Your task to perform on an android device: Add "razer blade" to the cart on ebay, then select checkout. Image 0: 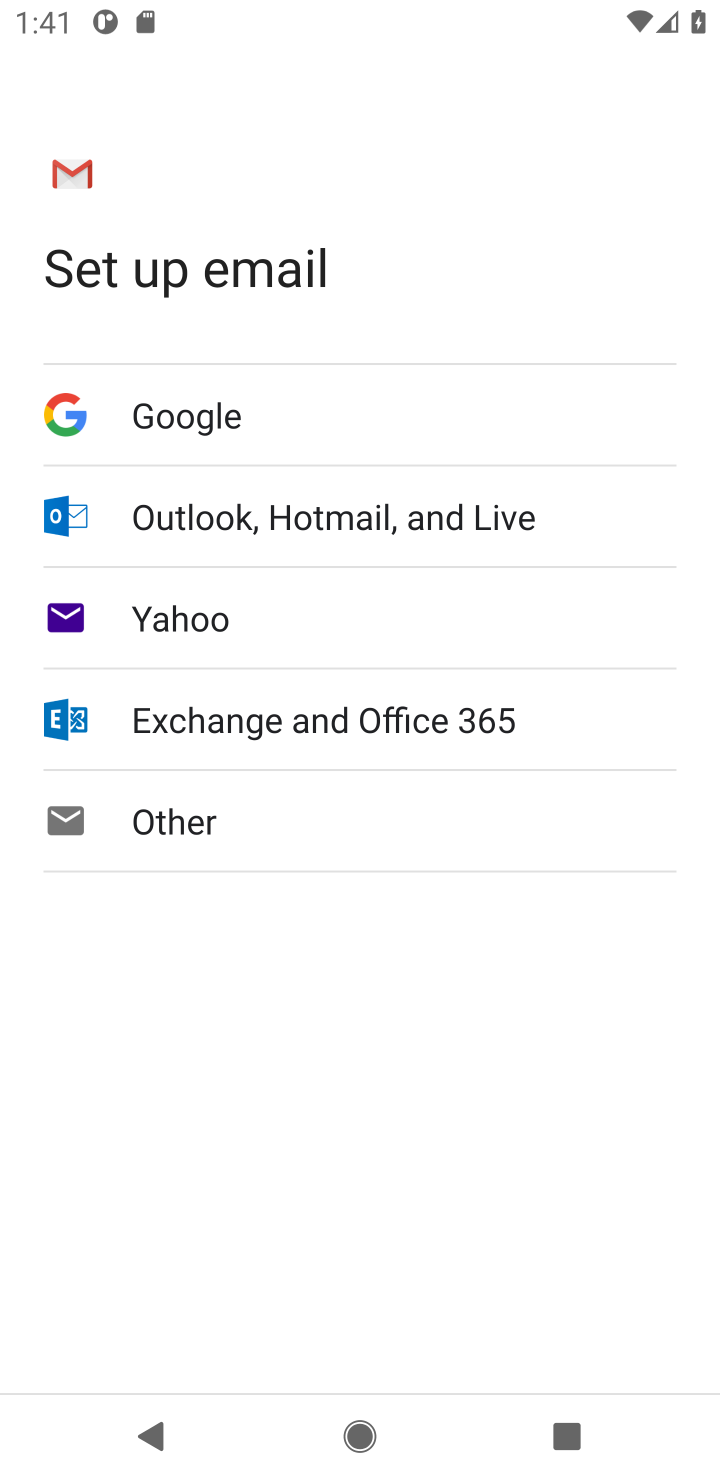
Step 0: press home button
Your task to perform on an android device: Add "razer blade" to the cart on ebay, then select checkout. Image 1: 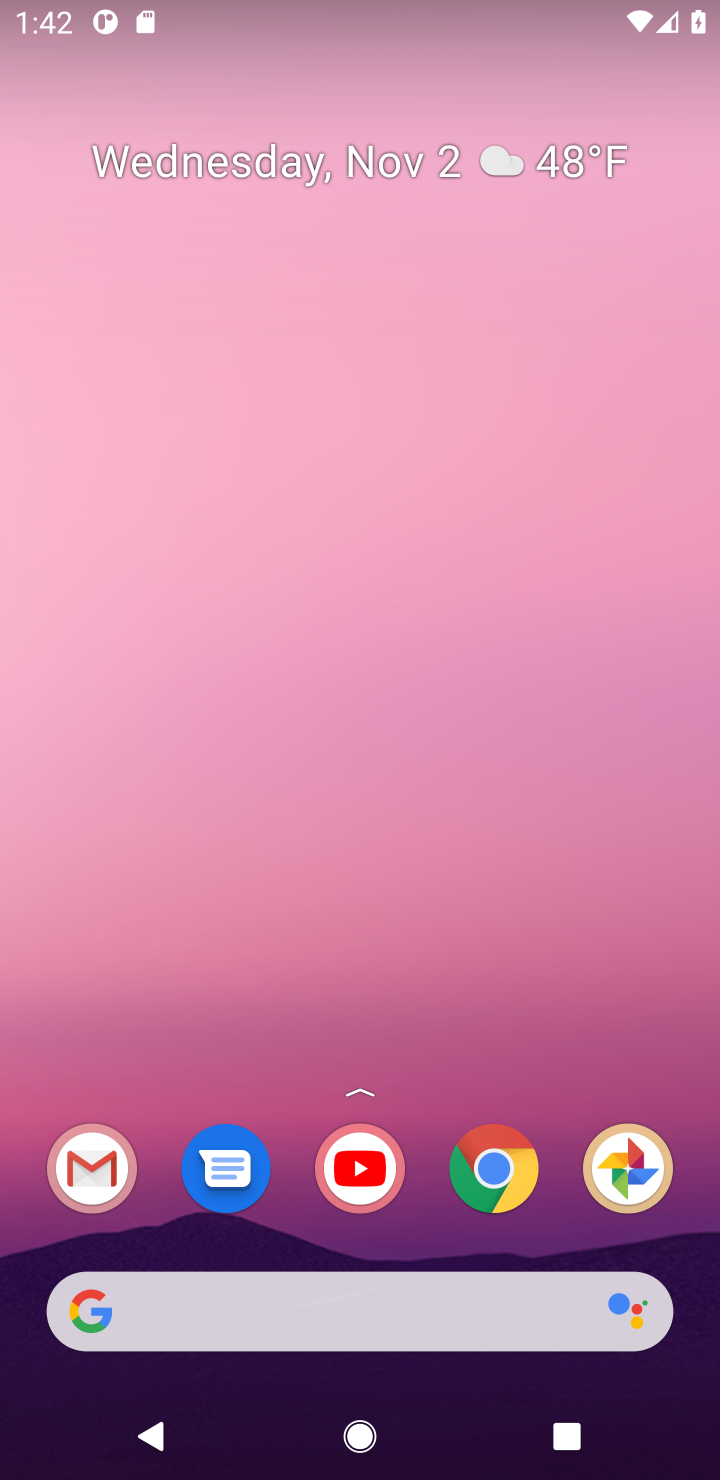
Step 1: click (317, 1307)
Your task to perform on an android device: Add "razer blade" to the cart on ebay, then select checkout. Image 2: 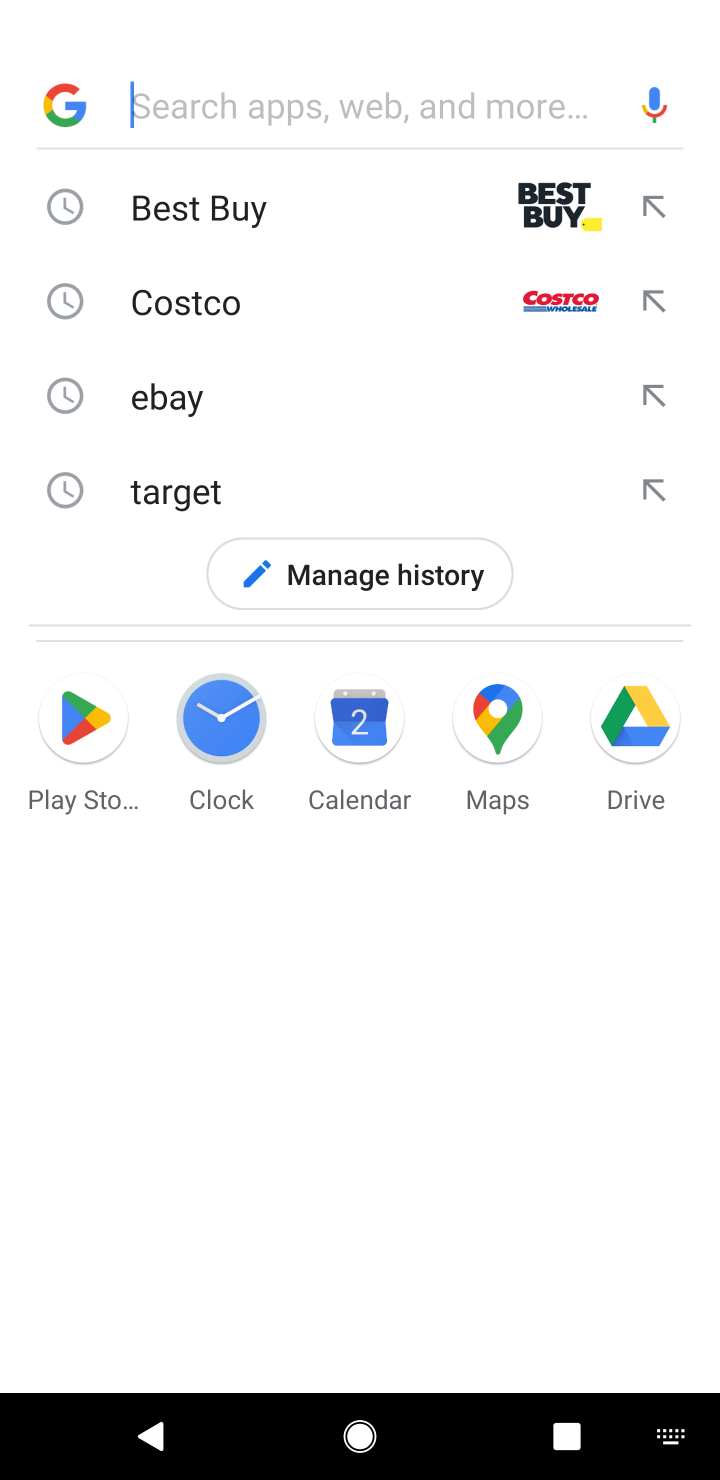
Step 2: click (436, 391)
Your task to perform on an android device: Add "razer blade" to the cart on ebay, then select checkout. Image 3: 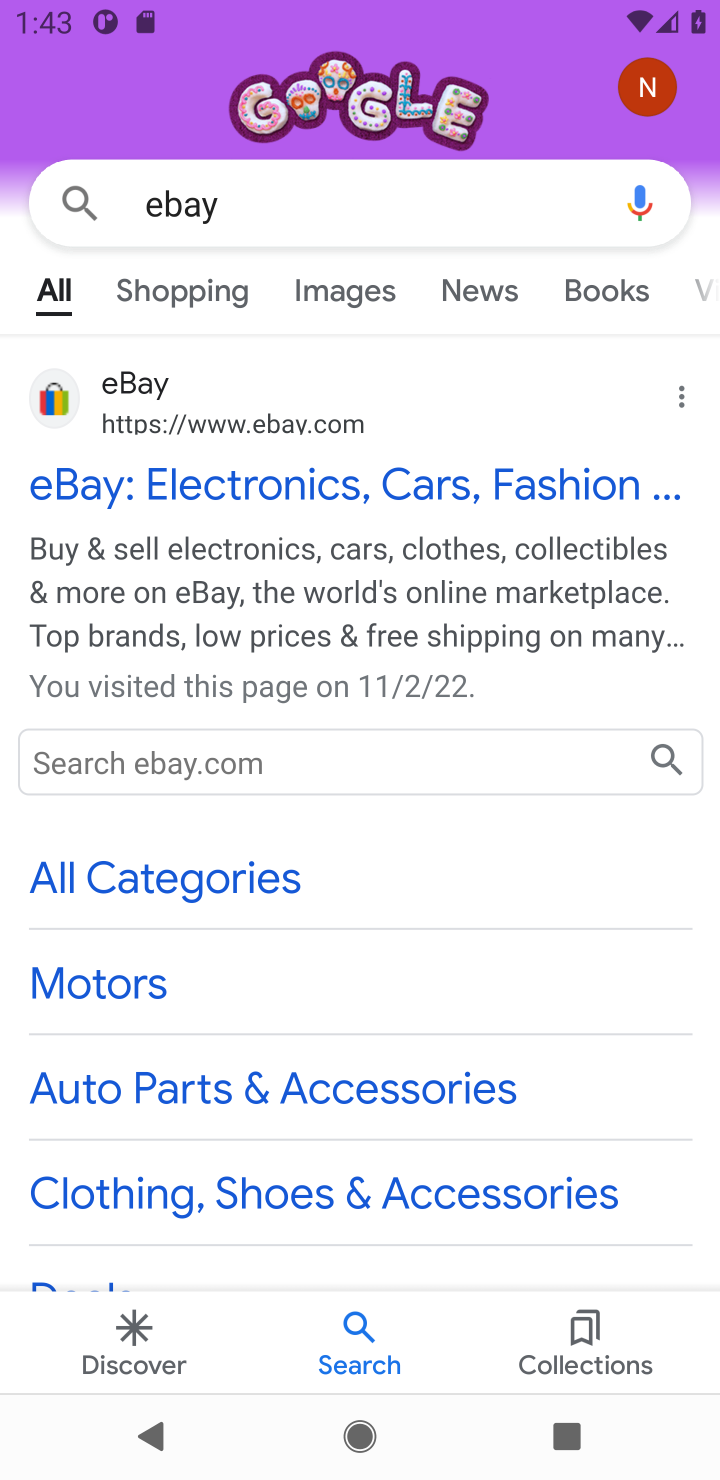
Step 3: click (141, 385)
Your task to perform on an android device: Add "razer blade" to the cart on ebay, then select checkout. Image 4: 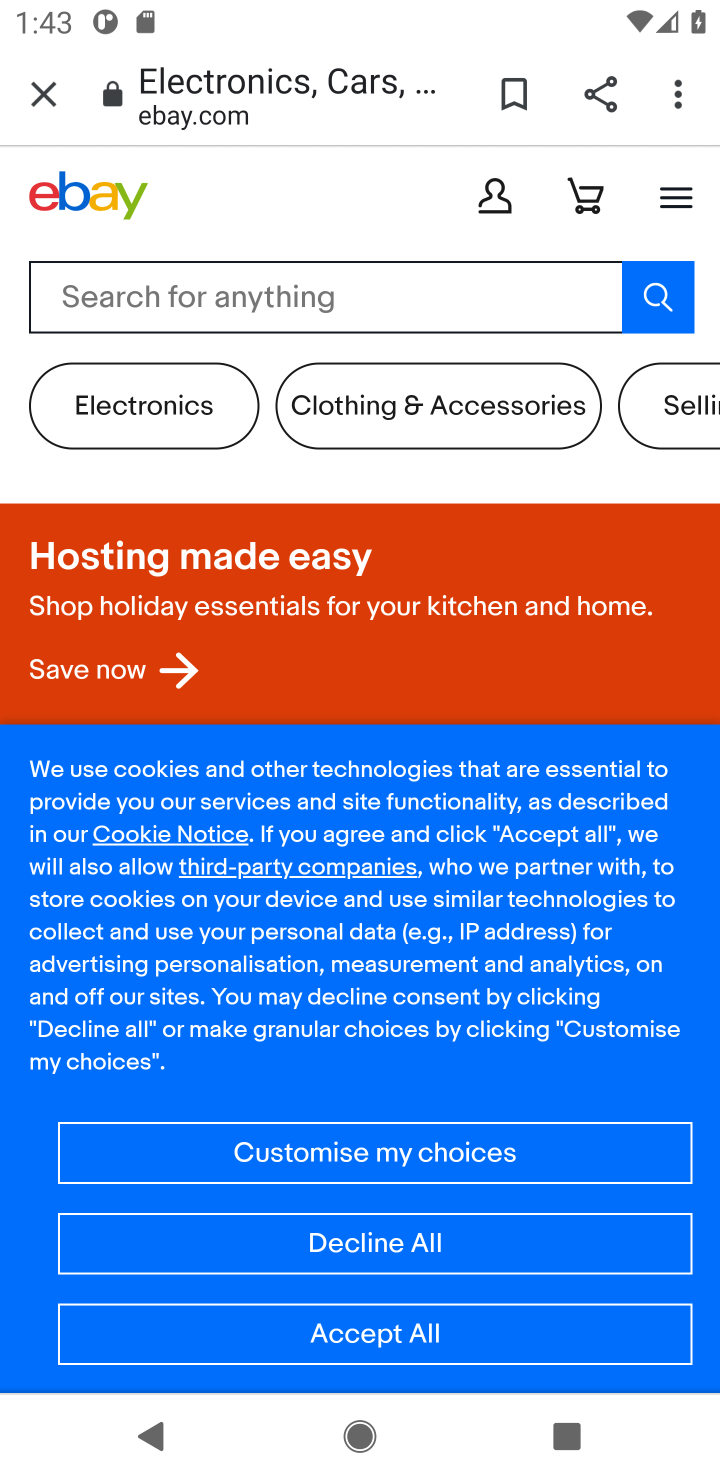
Step 4: click (287, 297)
Your task to perform on an android device: Add "razer blade" to the cart on ebay, then select checkout. Image 5: 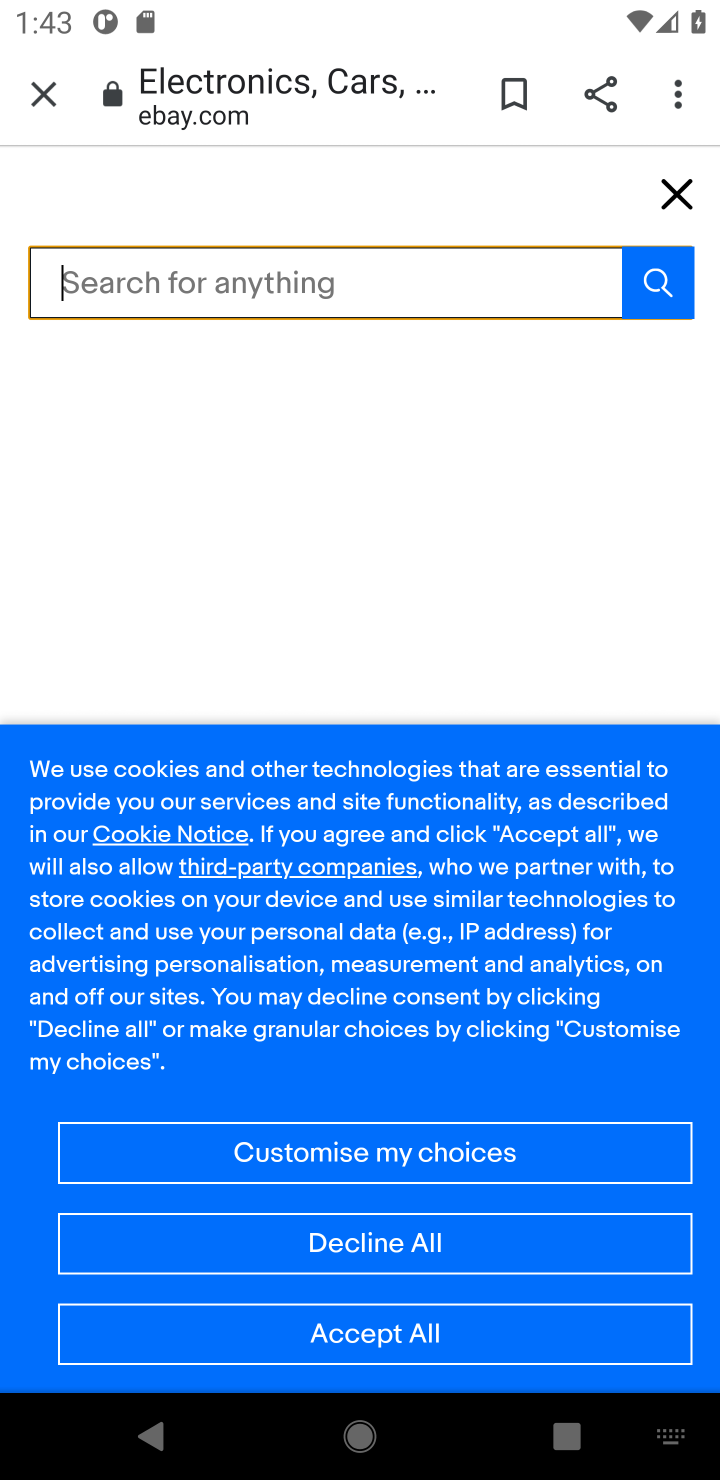
Step 5: type "razer blade"
Your task to perform on an android device: Add "razer blade" to the cart on ebay, then select checkout. Image 6: 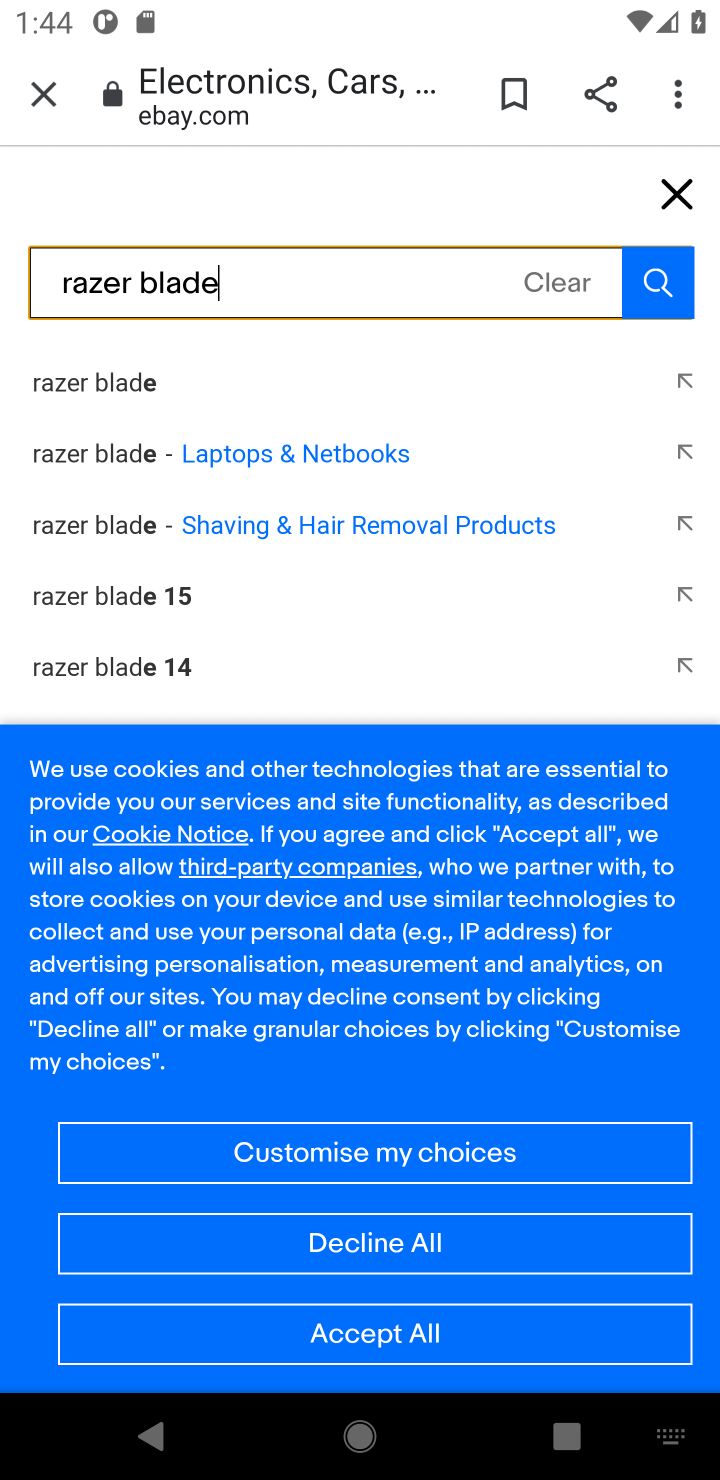
Step 6: click (101, 385)
Your task to perform on an android device: Add "razer blade" to the cart on ebay, then select checkout. Image 7: 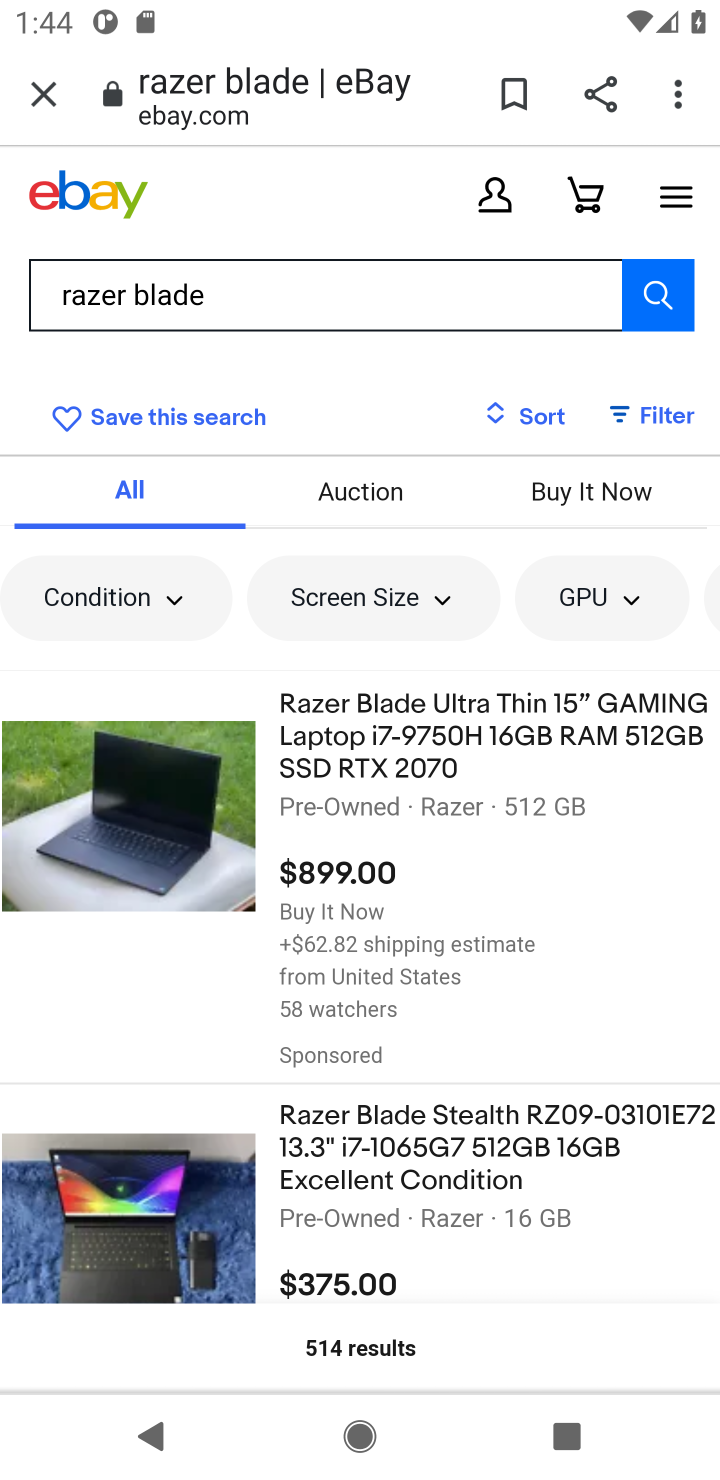
Step 7: click (340, 768)
Your task to perform on an android device: Add "razer blade" to the cart on ebay, then select checkout. Image 8: 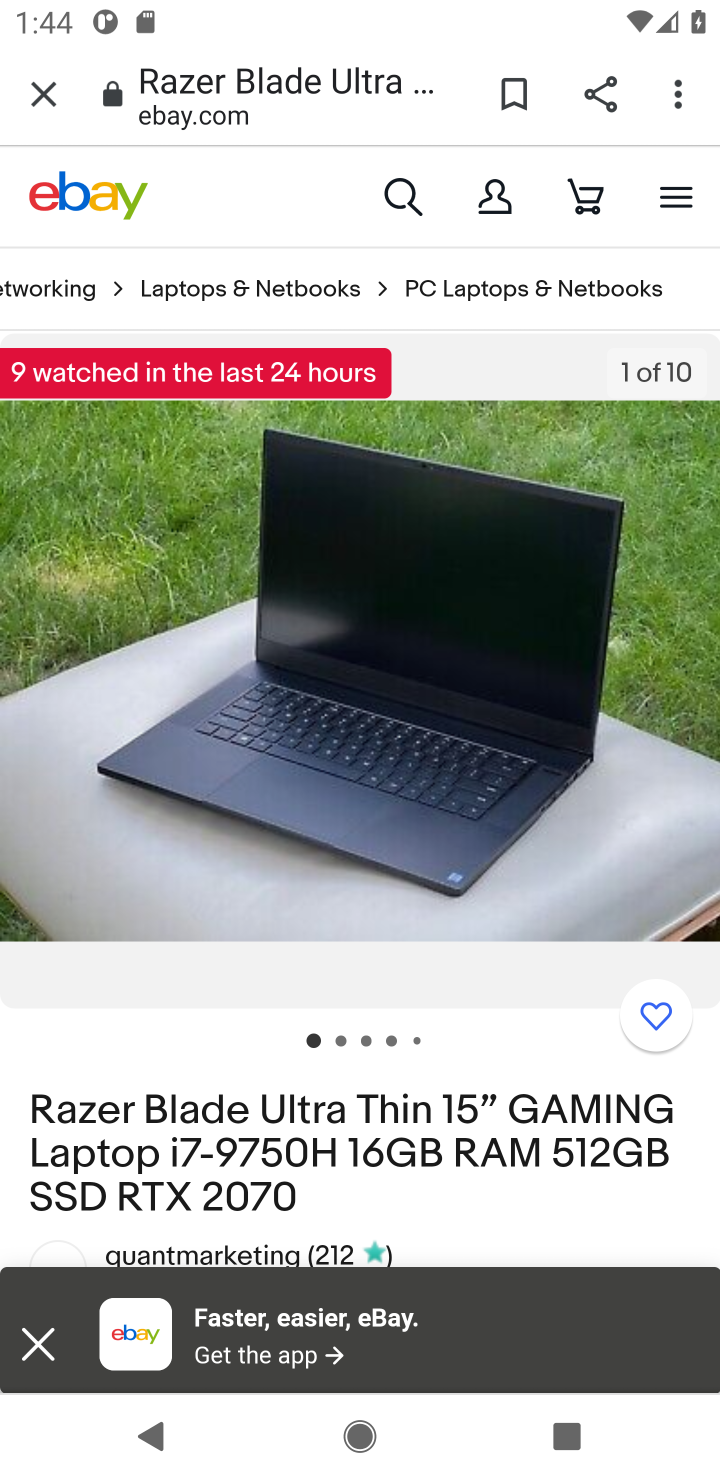
Step 8: drag from (479, 1017) to (499, 676)
Your task to perform on an android device: Add "razer blade" to the cart on ebay, then select checkout. Image 9: 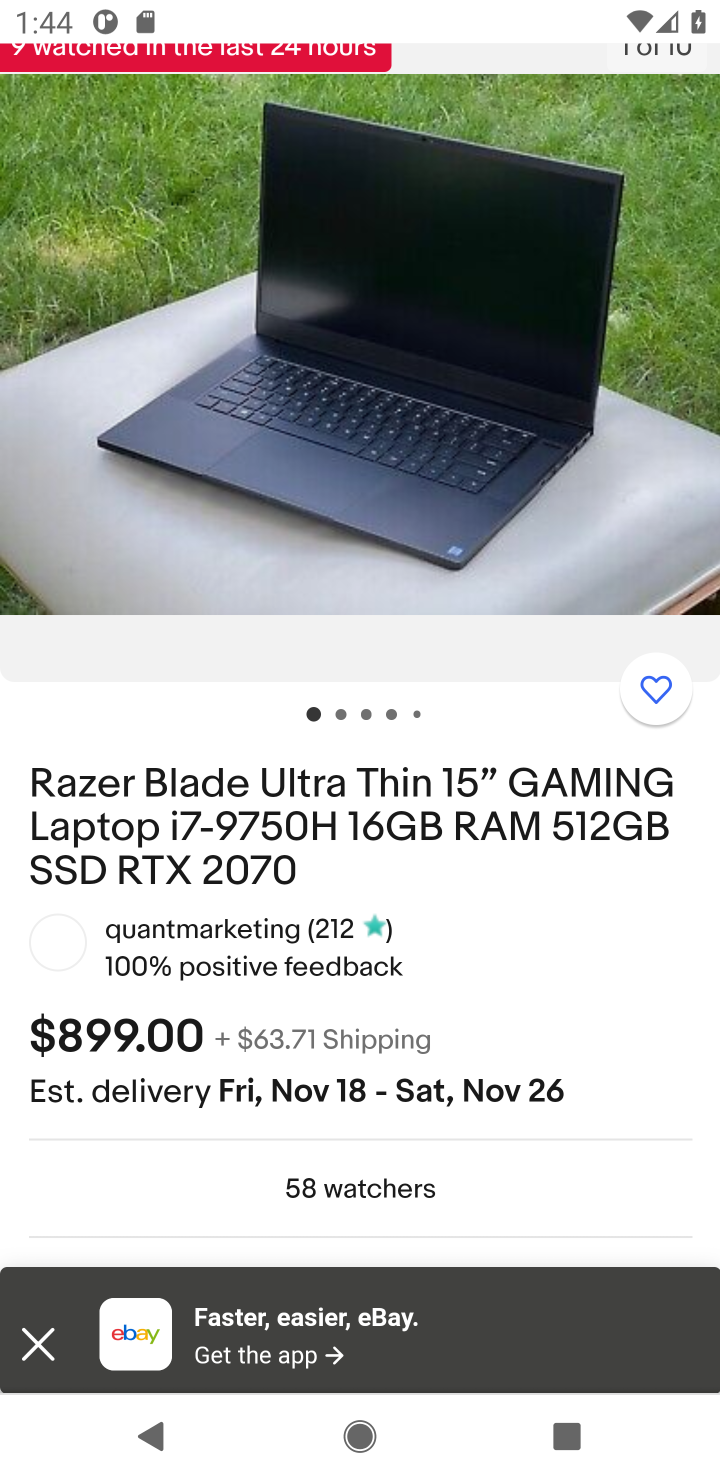
Step 9: drag from (539, 604) to (557, 465)
Your task to perform on an android device: Add "razer blade" to the cart on ebay, then select checkout. Image 10: 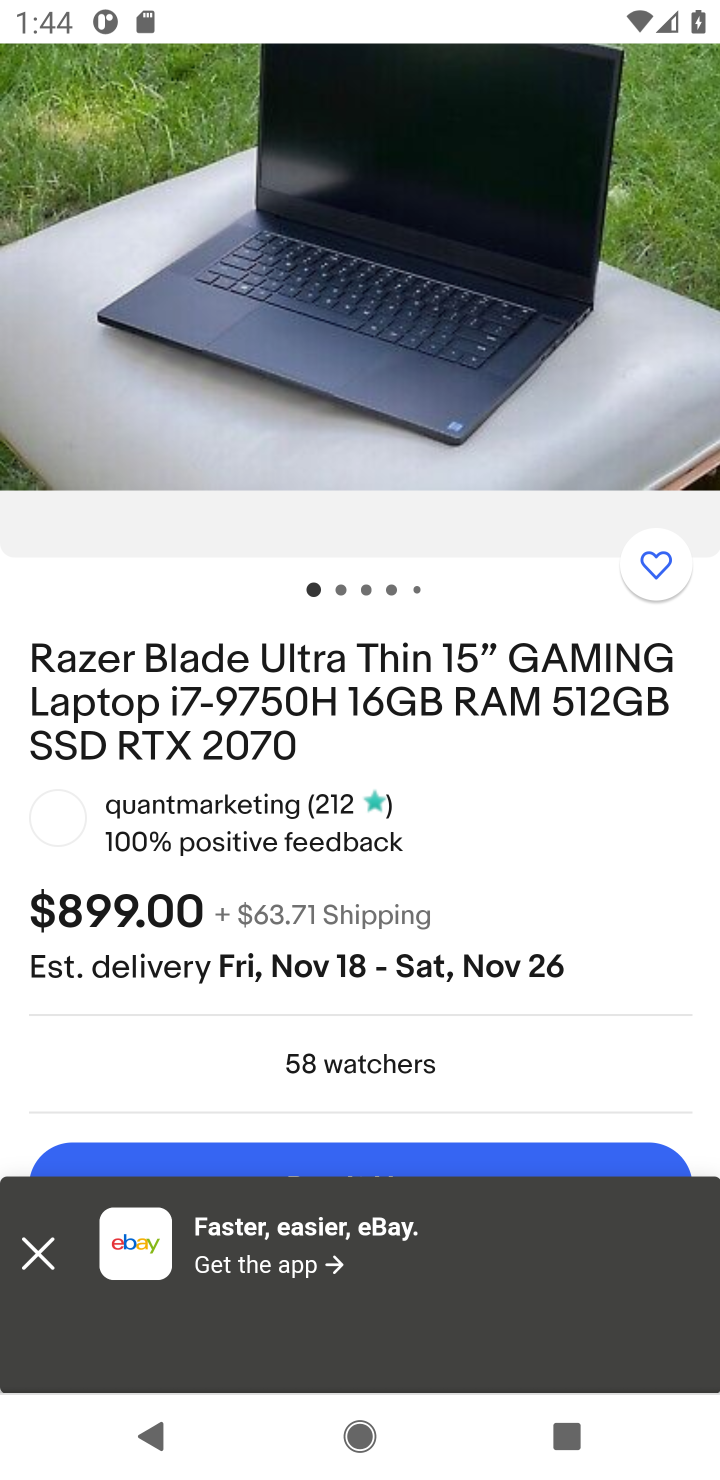
Step 10: drag from (504, 1008) to (565, 444)
Your task to perform on an android device: Add "razer blade" to the cart on ebay, then select checkout. Image 11: 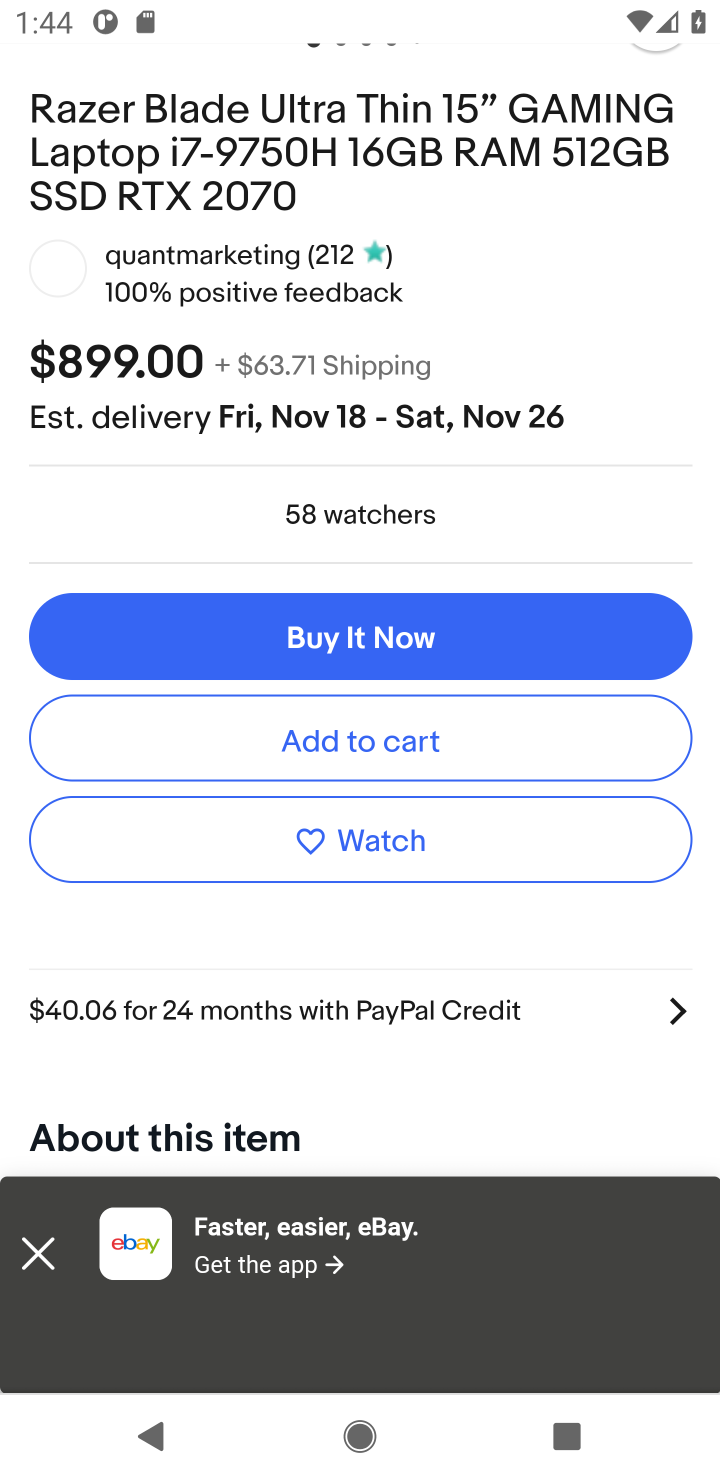
Step 11: click (328, 728)
Your task to perform on an android device: Add "razer blade" to the cart on ebay, then select checkout. Image 12: 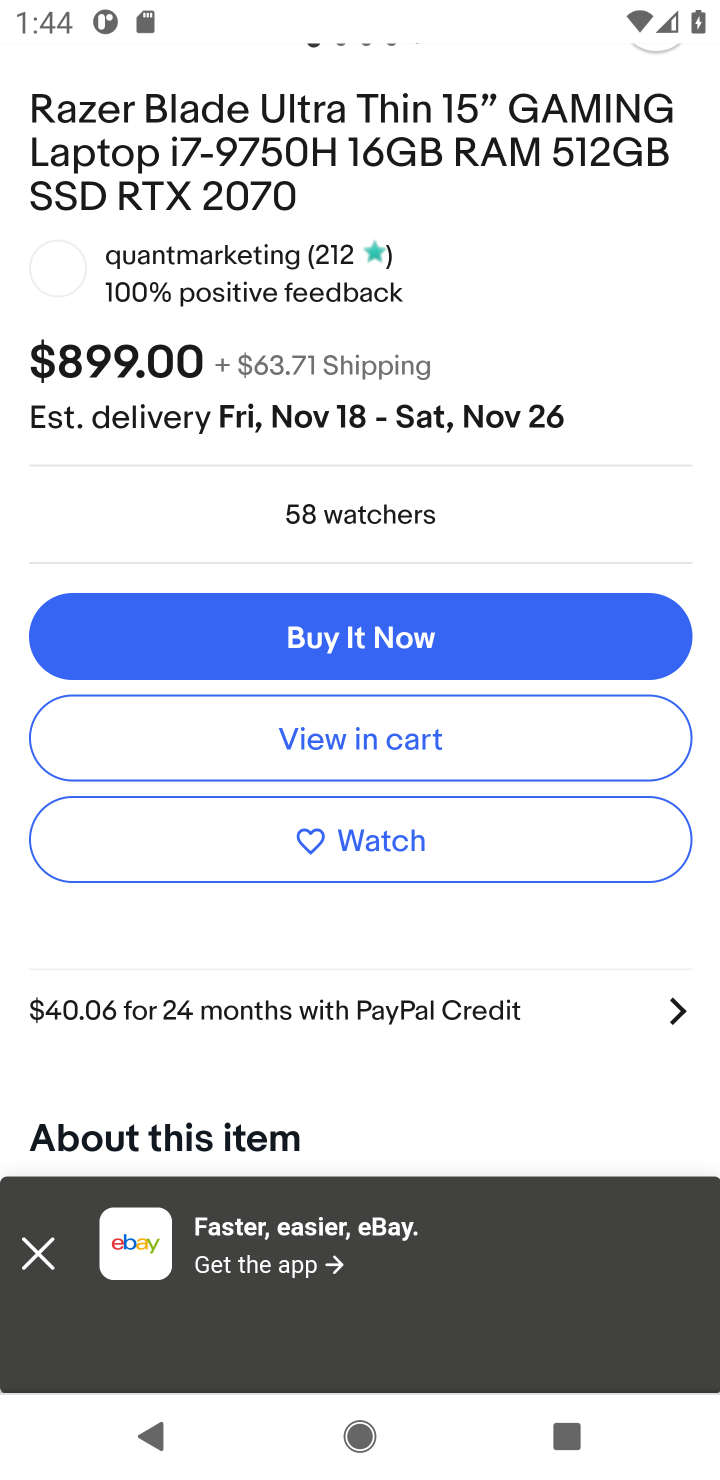
Step 12: click (357, 754)
Your task to perform on an android device: Add "razer blade" to the cart on ebay, then select checkout. Image 13: 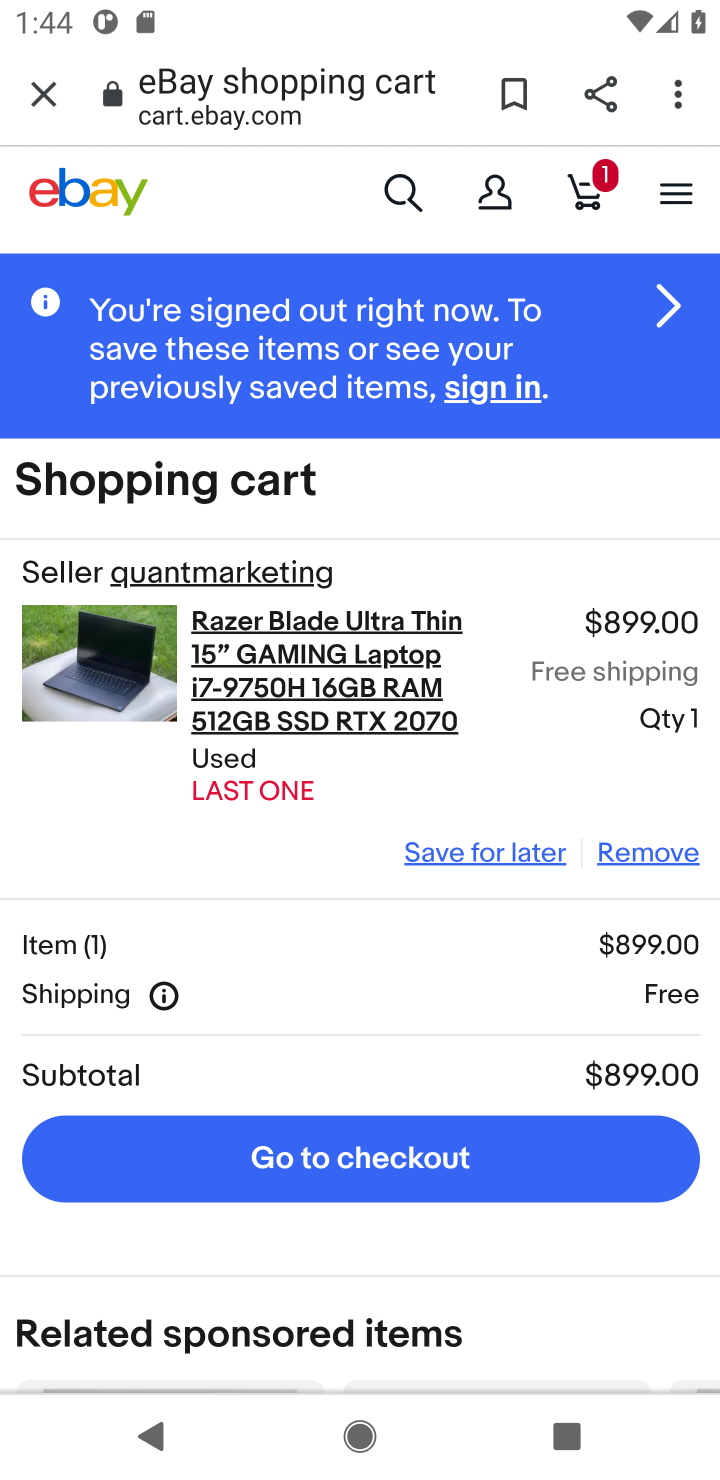
Step 13: click (355, 1155)
Your task to perform on an android device: Add "razer blade" to the cart on ebay, then select checkout. Image 14: 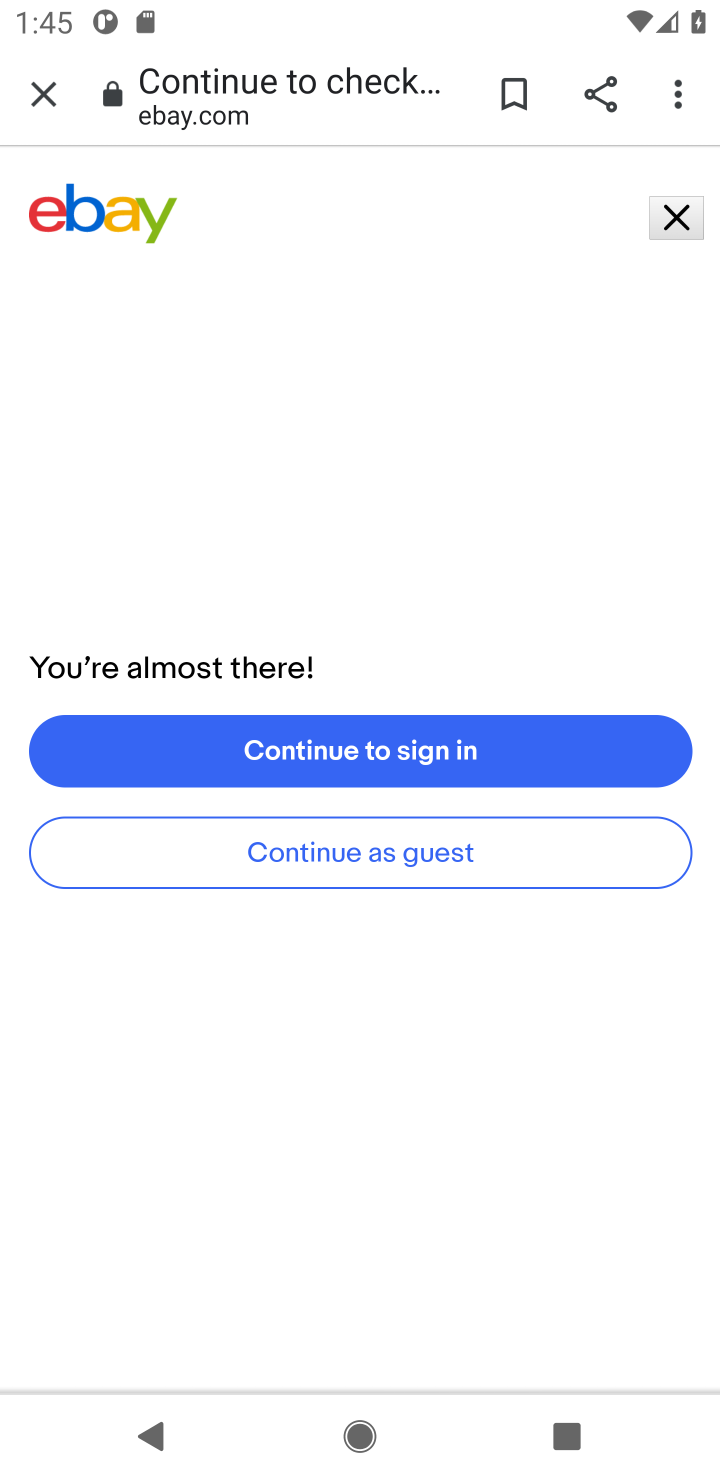
Step 14: task complete